Your task to perform on an android device: turn off javascript in the chrome app Image 0: 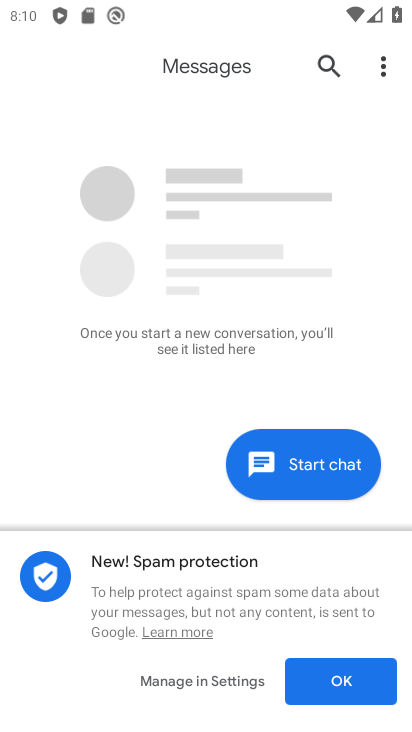
Step 0: press home button
Your task to perform on an android device: turn off javascript in the chrome app Image 1: 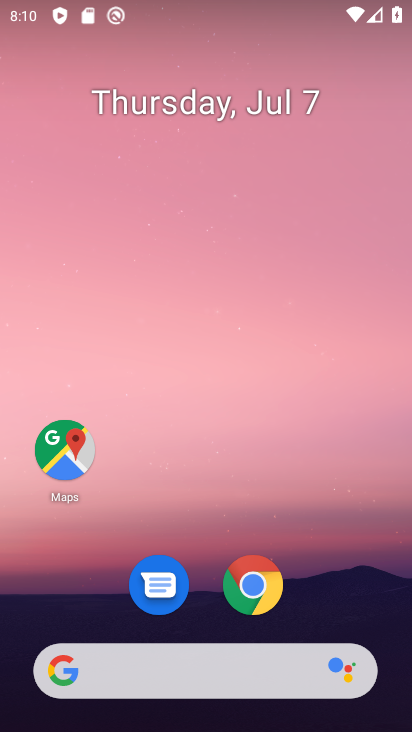
Step 1: click (255, 582)
Your task to perform on an android device: turn off javascript in the chrome app Image 2: 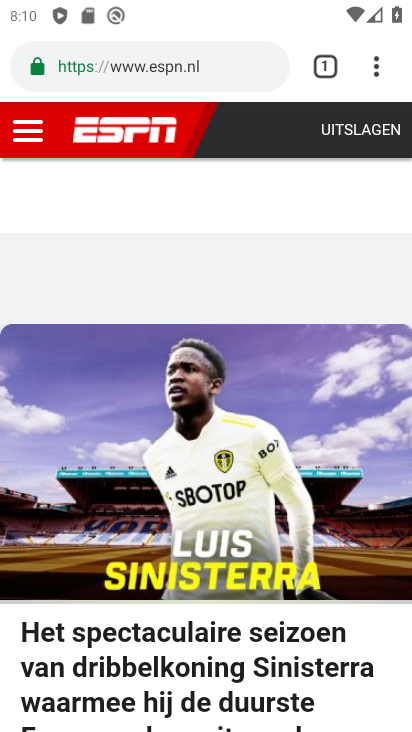
Step 2: click (372, 69)
Your task to perform on an android device: turn off javascript in the chrome app Image 3: 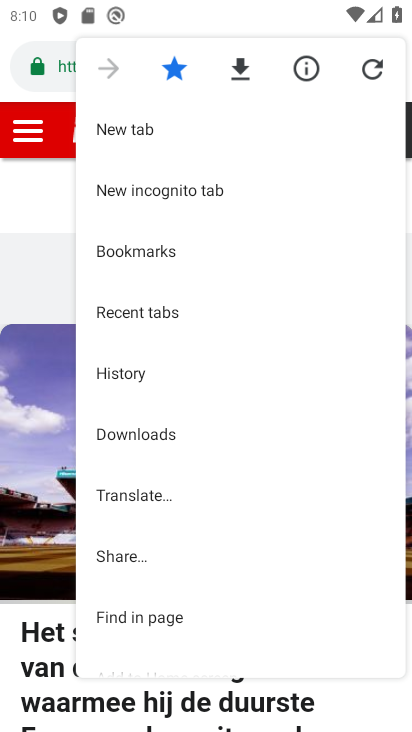
Step 3: drag from (220, 512) to (225, 220)
Your task to perform on an android device: turn off javascript in the chrome app Image 4: 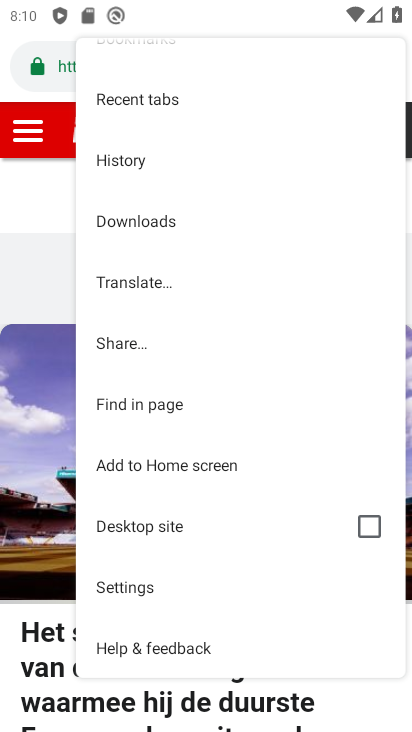
Step 4: click (137, 580)
Your task to perform on an android device: turn off javascript in the chrome app Image 5: 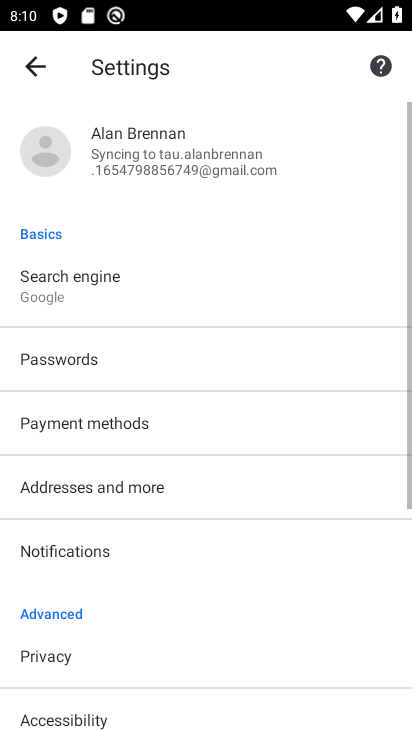
Step 5: drag from (252, 547) to (250, 374)
Your task to perform on an android device: turn off javascript in the chrome app Image 6: 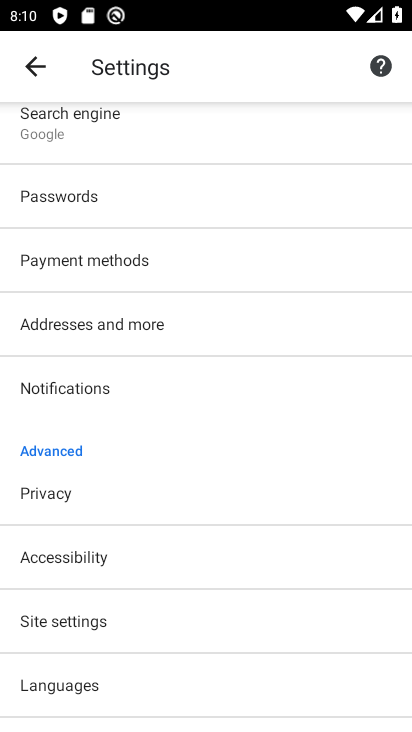
Step 6: click (84, 622)
Your task to perform on an android device: turn off javascript in the chrome app Image 7: 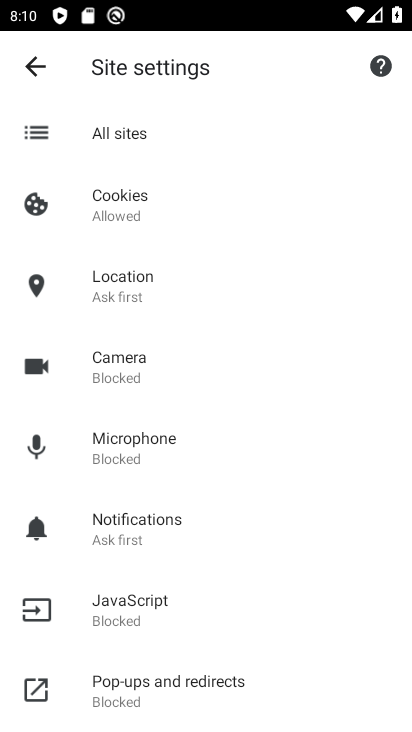
Step 7: click (162, 609)
Your task to perform on an android device: turn off javascript in the chrome app Image 8: 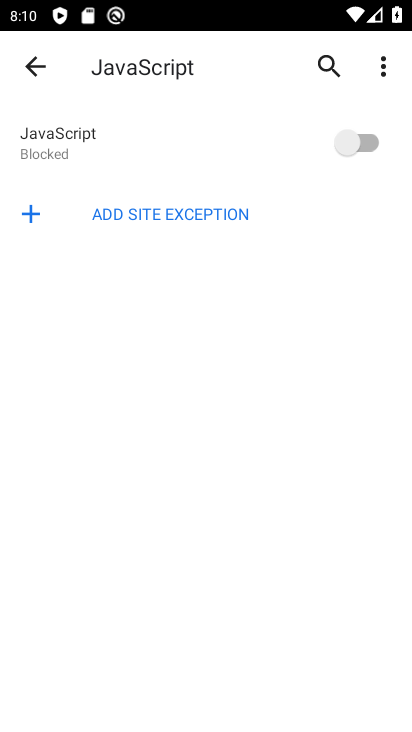
Step 8: task complete